Your task to perform on an android device: Search for "macbook pro 13 inch" on amazon, select the first entry, add it to the cart, then select checkout. Image 0: 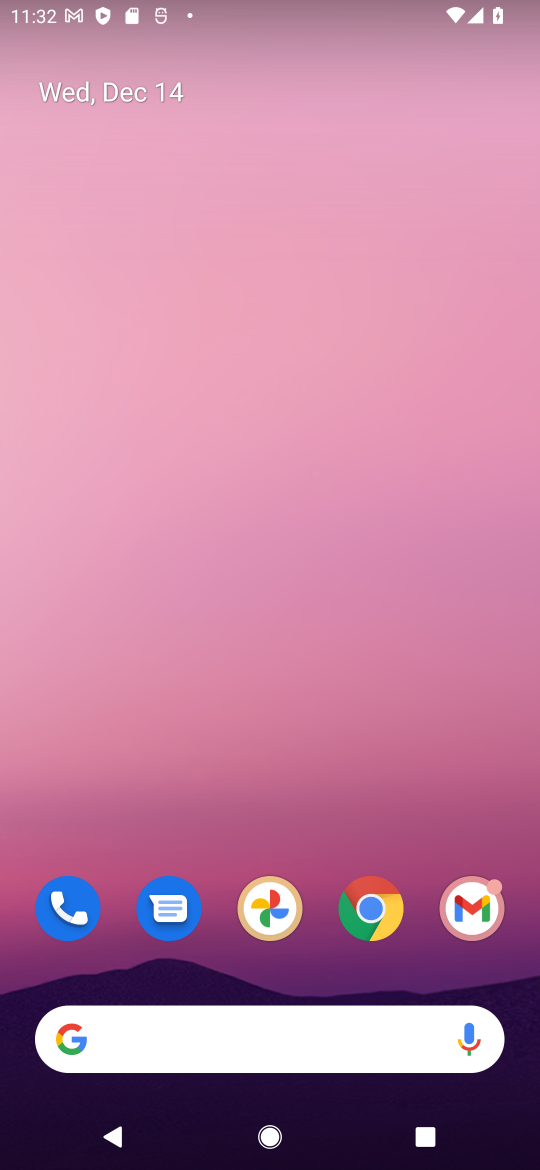
Step 0: click (378, 905)
Your task to perform on an android device: Search for "macbook pro 13 inch" on amazon, select the first entry, add it to the cart, then select checkout. Image 1: 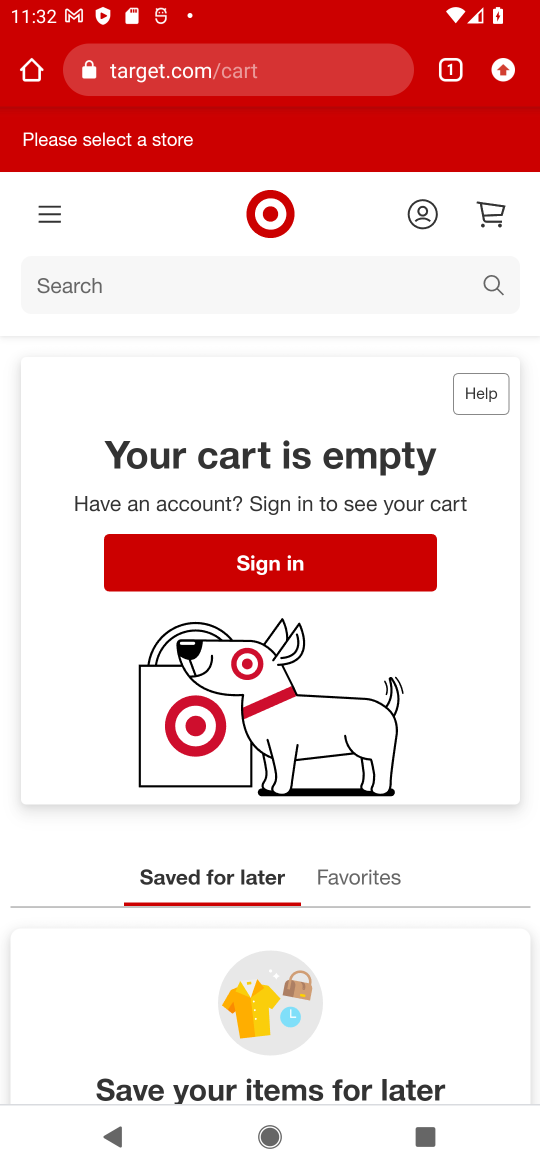
Step 1: click (157, 76)
Your task to perform on an android device: Search for "macbook pro 13 inch" on amazon, select the first entry, add it to the cart, then select checkout. Image 2: 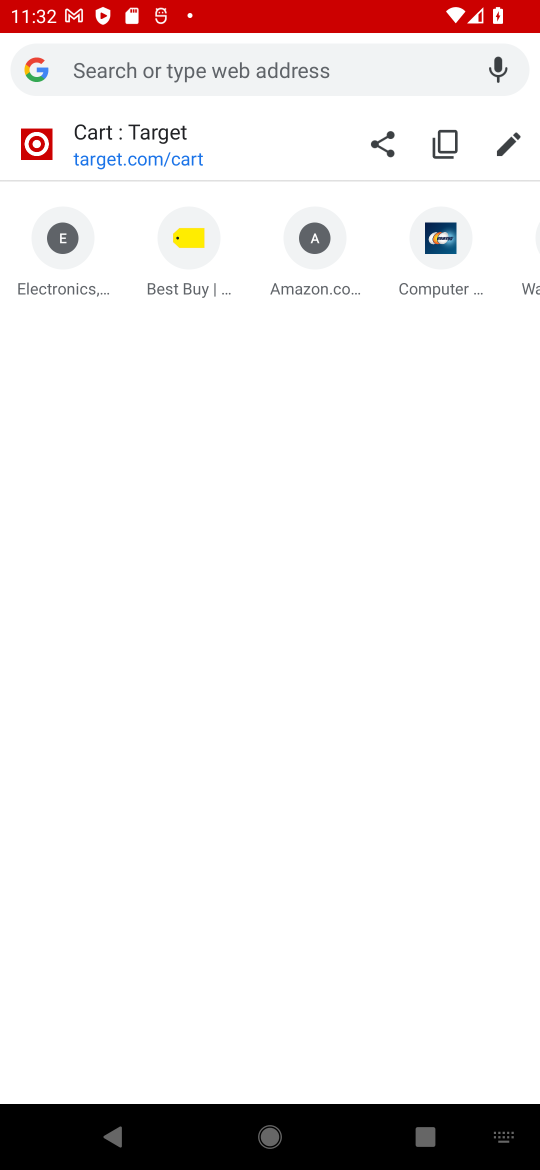
Step 2: click (317, 294)
Your task to perform on an android device: Search for "macbook pro 13 inch" on amazon, select the first entry, add it to the cart, then select checkout. Image 3: 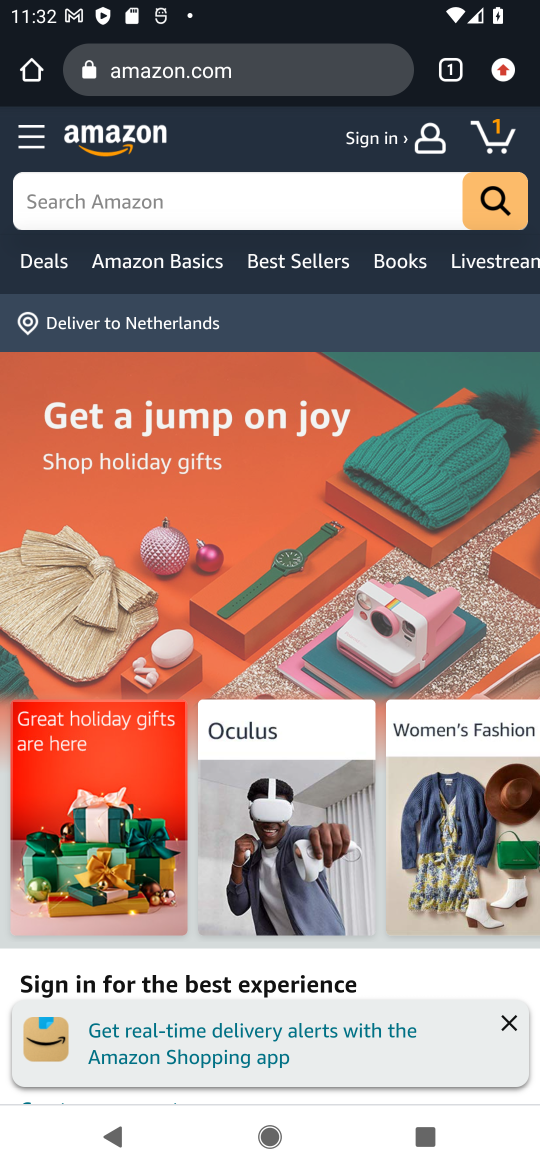
Step 3: click (71, 206)
Your task to perform on an android device: Search for "macbook pro 13 inch" on amazon, select the first entry, add it to the cart, then select checkout. Image 4: 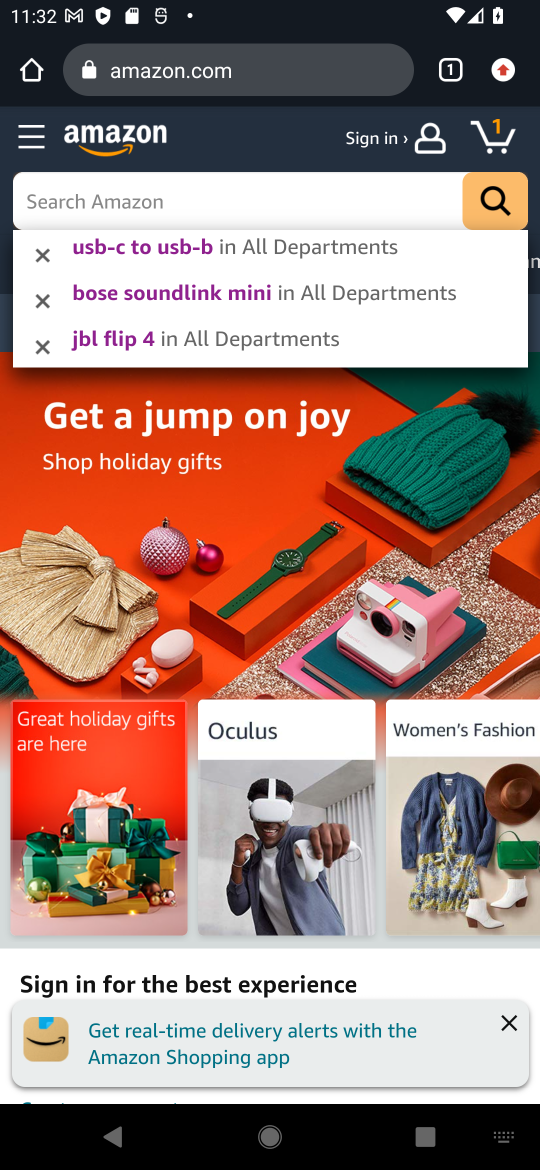
Step 4: type "macbook pro 13 inch"
Your task to perform on an android device: Search for "macbook pro 13 inch" on amazon, select the first entry, add it to the cart, then select checkout. Image 5: 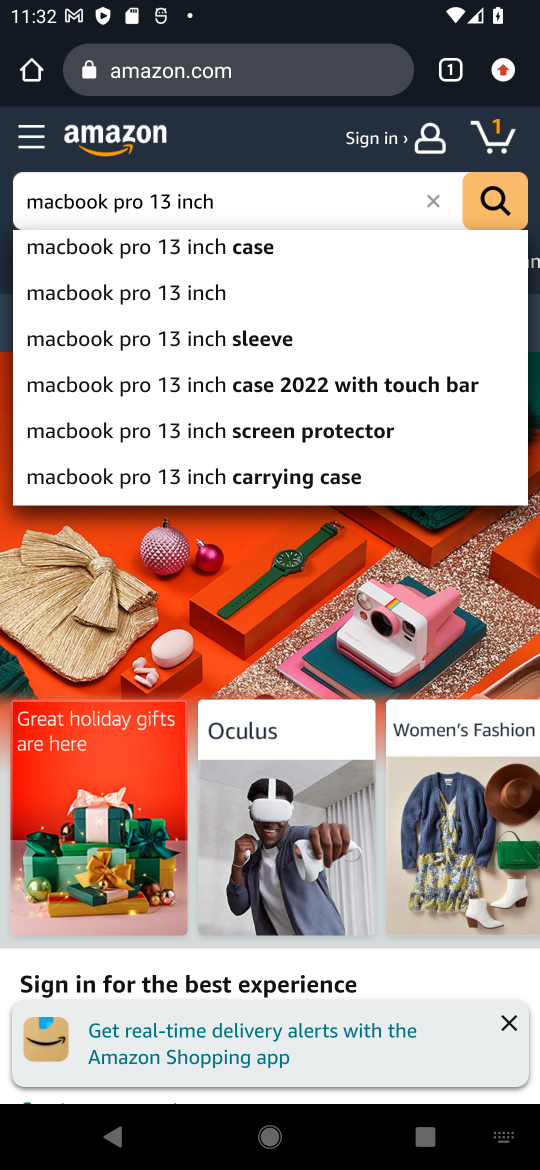
Step 5: click (169, 293)
Your task to perform on an android device: Search for "macbook pro 13 inch" on amazon, select the first entry, add it to the cart, then select checkout. Image 6: 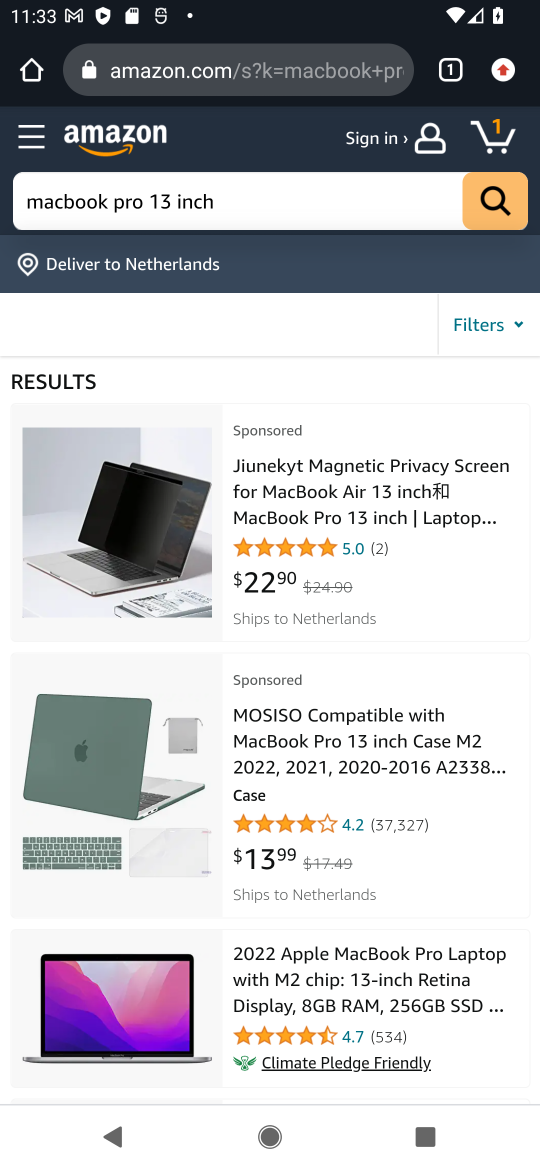
Step 6: click (302, 484)
Your task to perform on an android device: Search for "macbook pro 13 inch" on amazon, select the first entry, add it to the cart, then select checkout. Image 7: 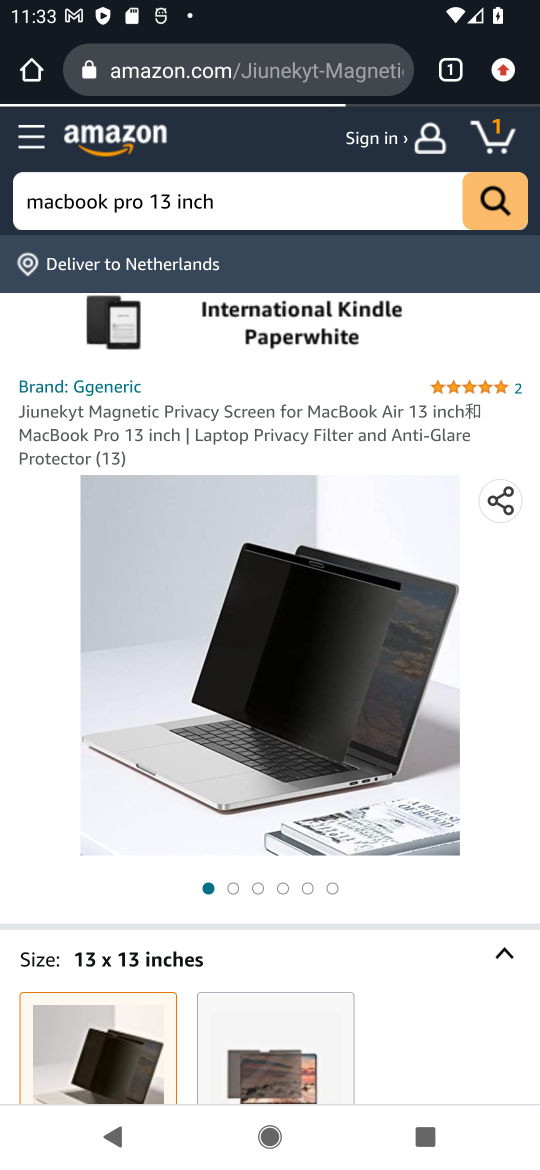
Step 7: drag from (236, 811) to (259, 430)
Your task to perform on an android device: Search for "macbook pro 13 inch" on amazon, select the first entry, add it to the cart, then select checkout. Image 8: 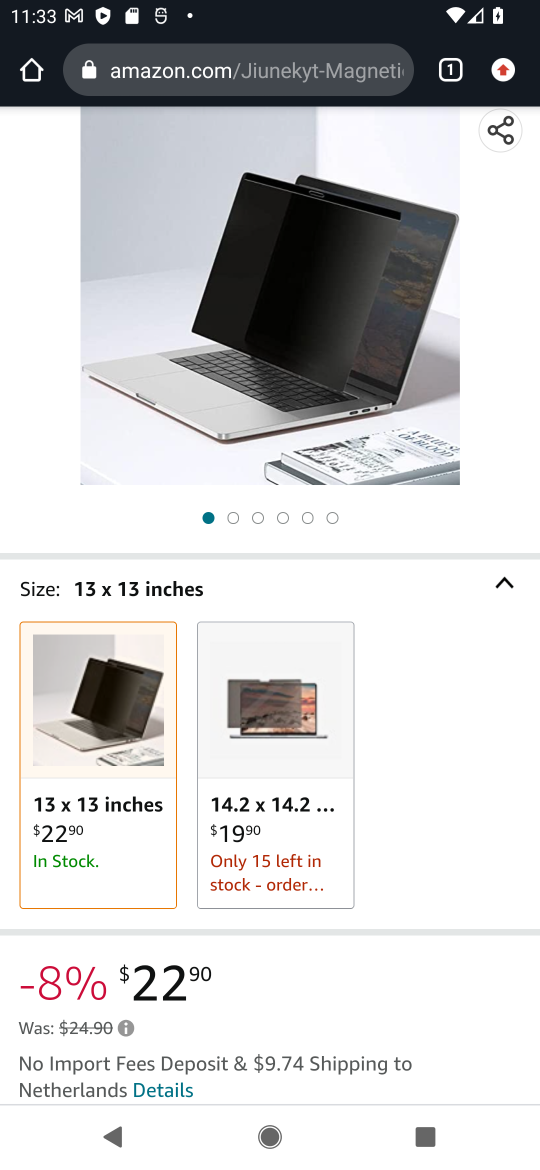
Step 8: drag from (231, 871) to (221, 353)
Your task to perform on an android device: Search for "macbook pro 13 inch" on amazon, select the first entry, add it to the cart, then select checkout. Image 9: 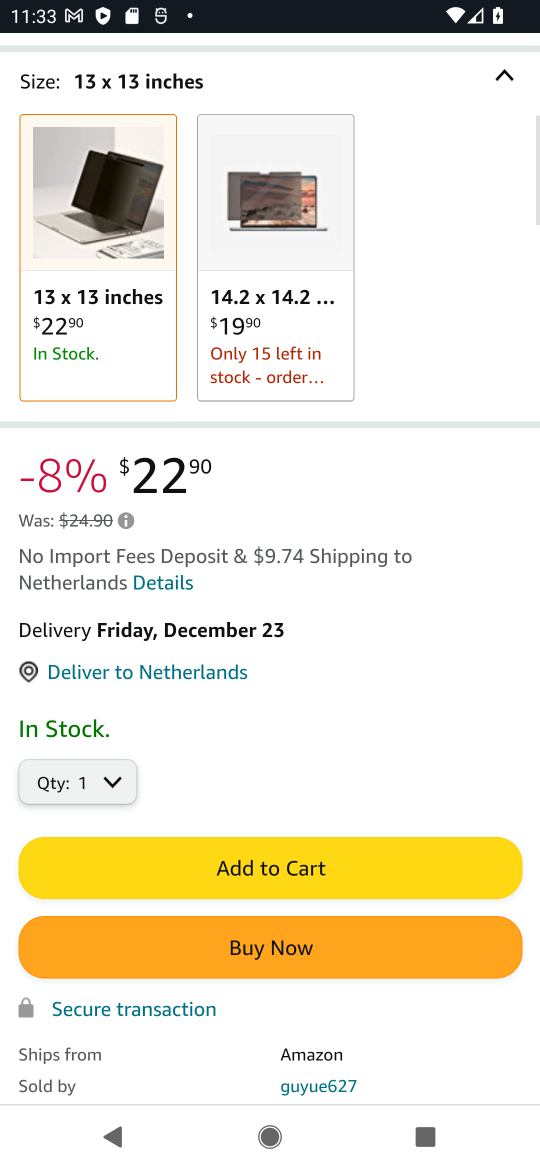
Step 9: click (212, 863)
Your task to perform on an android device: Search for "macbook pro 13 inch" on amazon, select the first entry, add it to the cart, then select checkout. Image 10: 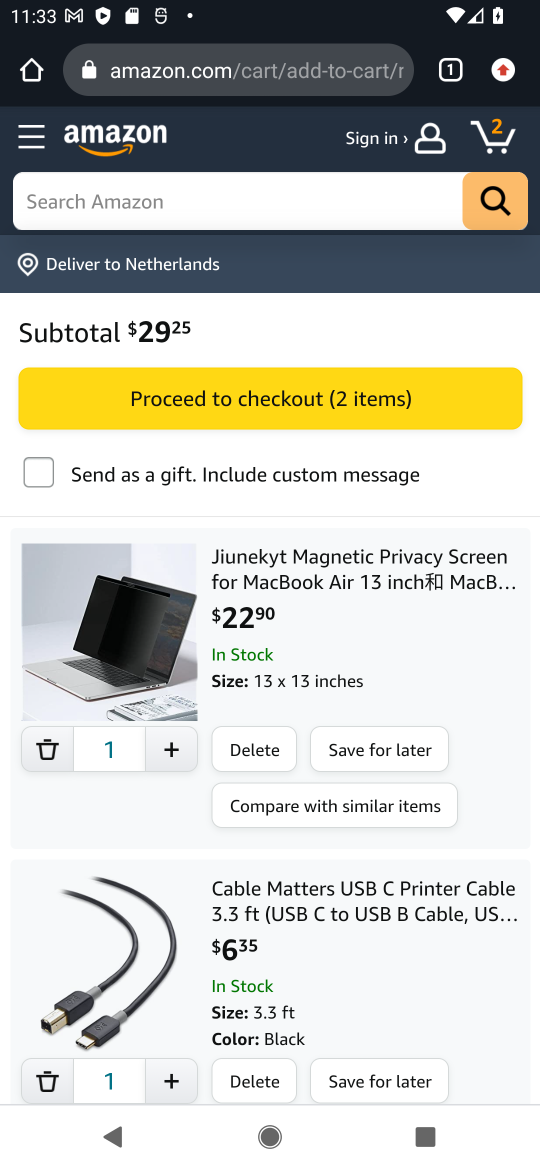
Step 10: click (241, 415)
Your task to perform on an android device: Search for "macbook pro 13 inch" on amazon, select the first entry, add it to the cart, then select checkout. Image 11: 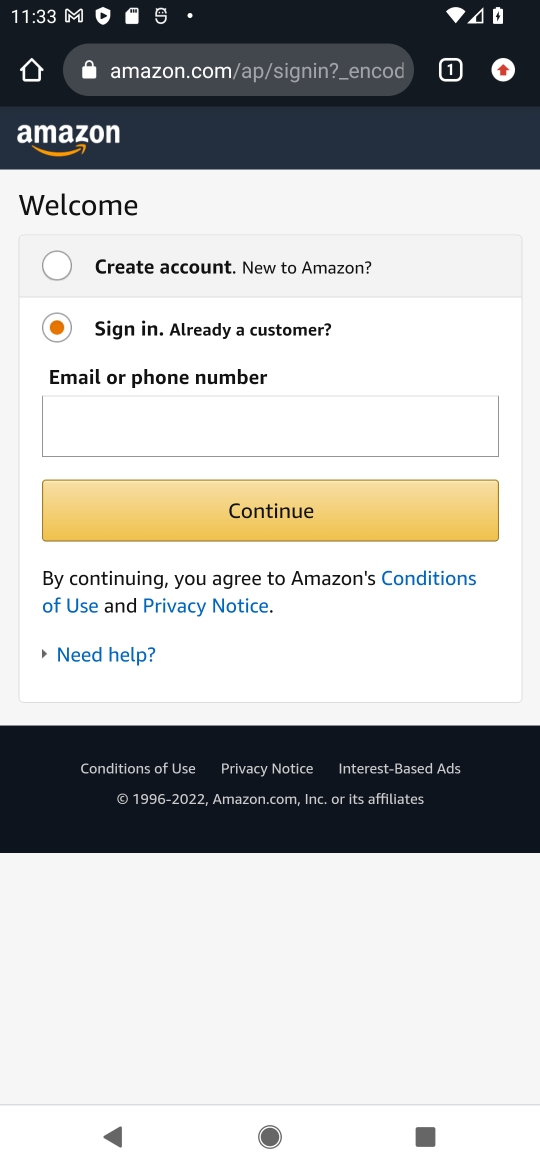
Step 11: task complete